Your task to perform on an android device: open a bookmark in the chrome app Image 0: 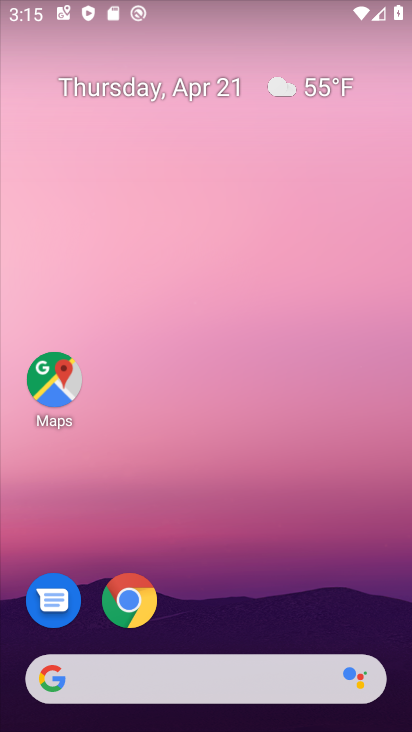
Step 0: drag from (225, 638) to (374, 159)
Your task to perform on an android device: open a bookmark in the chrome app Image 1: 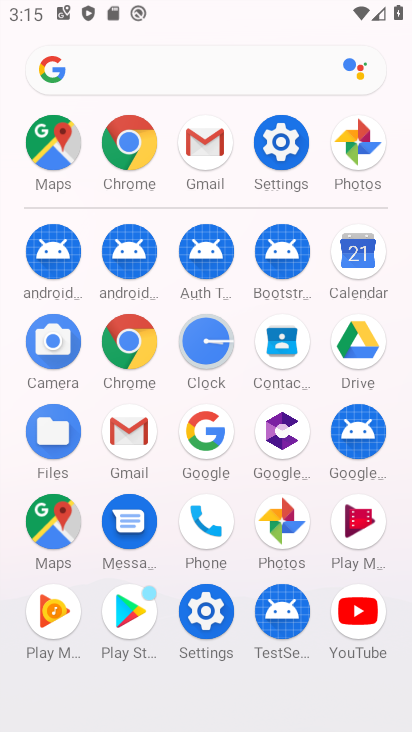
Step 1: click (128, 144)
Your task to perform on an android device: open a bookmark in the chrome app Image 2: 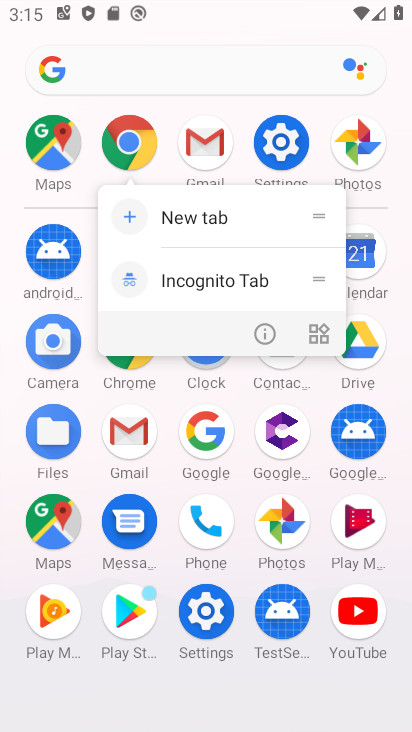
Step 2: click (125, 155)
Your task to perform on an android device: open a bookmark in the chrome app Image 3: 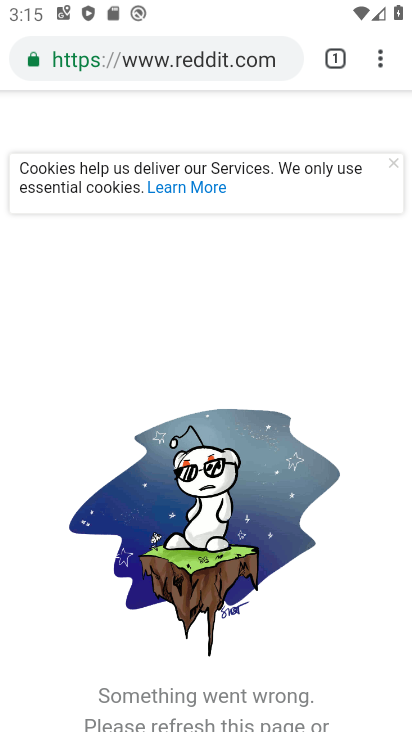
Step 3: click (372, 70)
Your task to perform on an android device: open a bookmark in the chrome app Image 4: 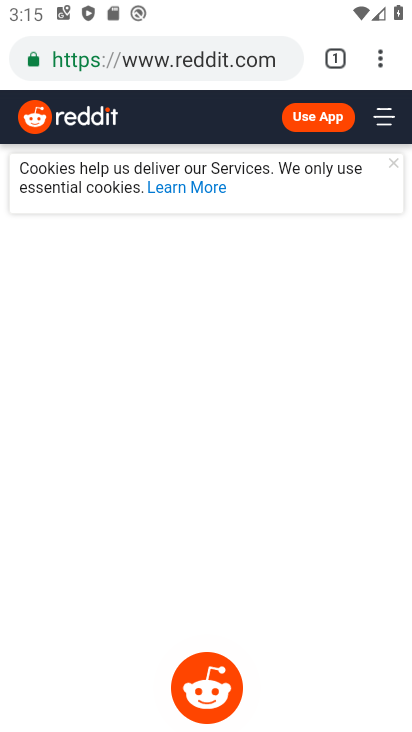
Step 4: click (374, 67)
Your task to perform on an android device: open a bookmark in the chrome app Image 5: 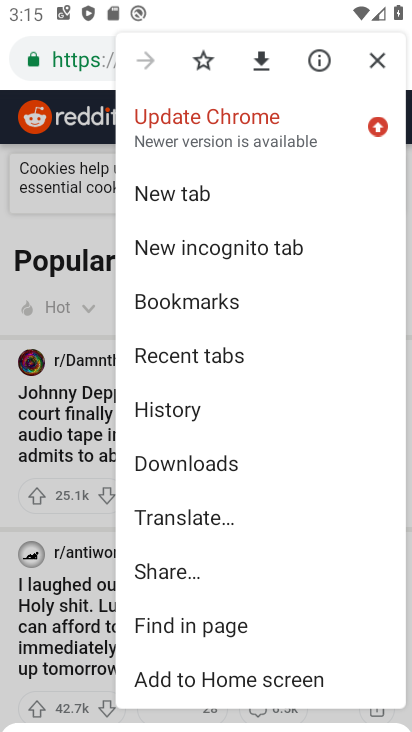
Step 5: click (199, 302)
Your task to perform on an android device: open a bookmark in the chrome app Image 6: 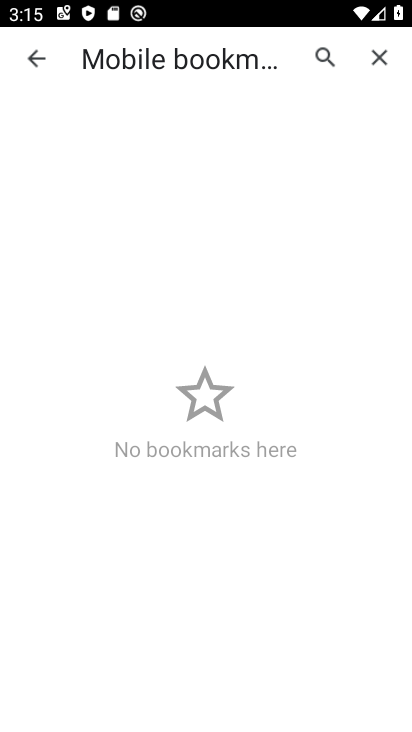
Step 6: task complete